Your task to perform on an android device: toggle pop-ups in chrome Image 0: 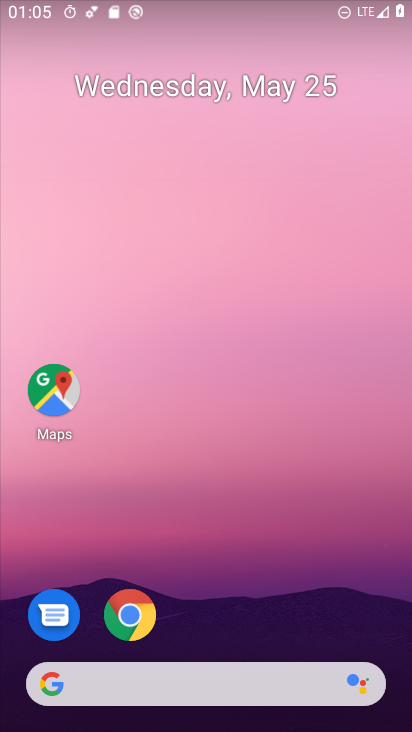
Step 0: drag from (222, 689) to (342, 106)
Your task to perform on an android device: toggle pop-ups in chrome Image 1: 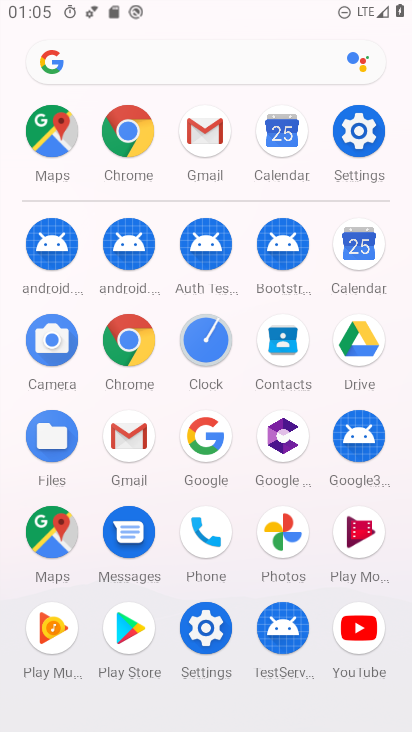
Step 1: click (139, 133)
Your task to perform on an android device: toggle pop-ups in chrome Image 2: 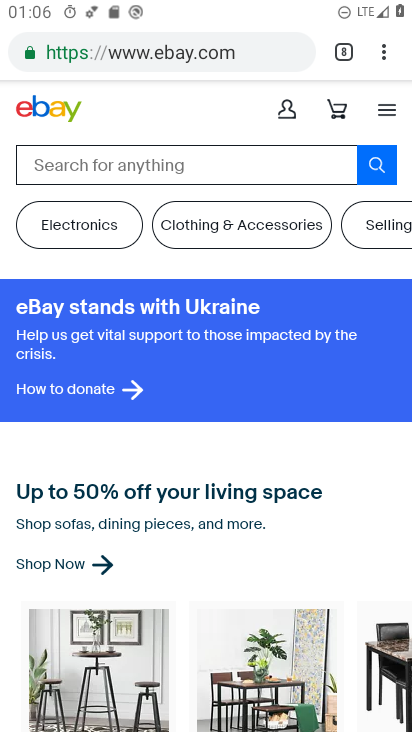
Step 2: click (379, 53)
Your task to perform on an android device: toggle pop-ups in chrome Image 3: 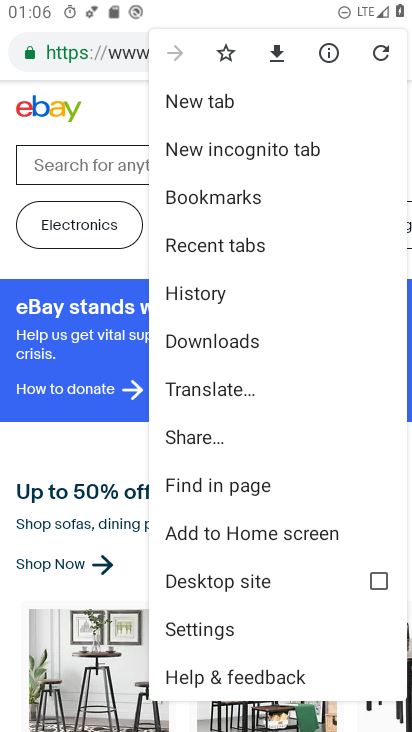
Step 3: click (205, 622)
Your task to perform on an android device: toggle pop-ups in chrome Image 4: 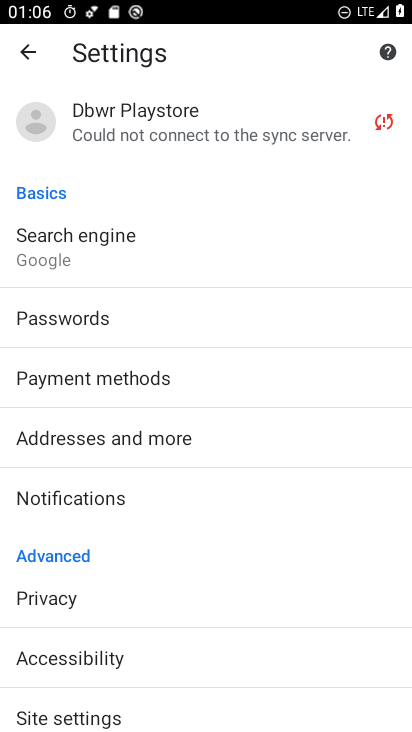
Step 4: click (74, 716)
Your task to perform on an android device: toggle pop-ups in chrome Image 5: 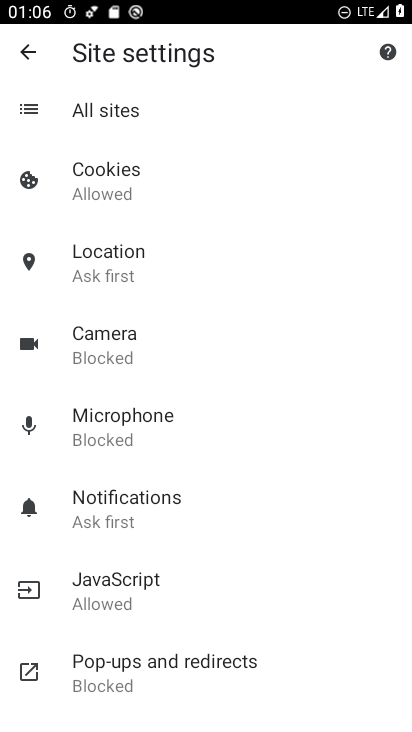
Step 5: click (141, 657)
Your task to perform on an android device: toggle pop-ups in chrome Image 6: 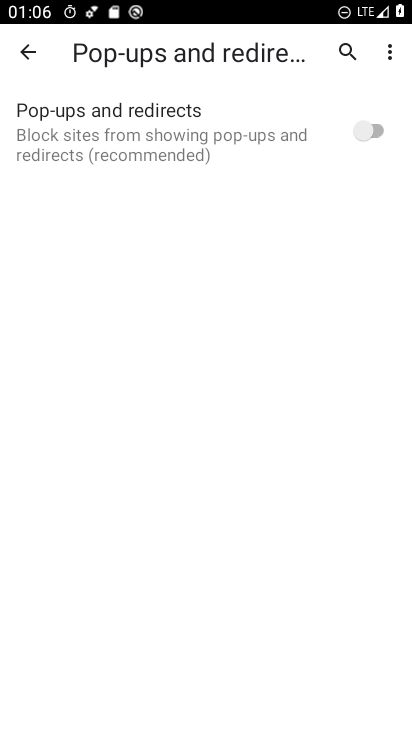
Step 6: task complete